Your task to perform on an android device: set the stopwatch Image 0: 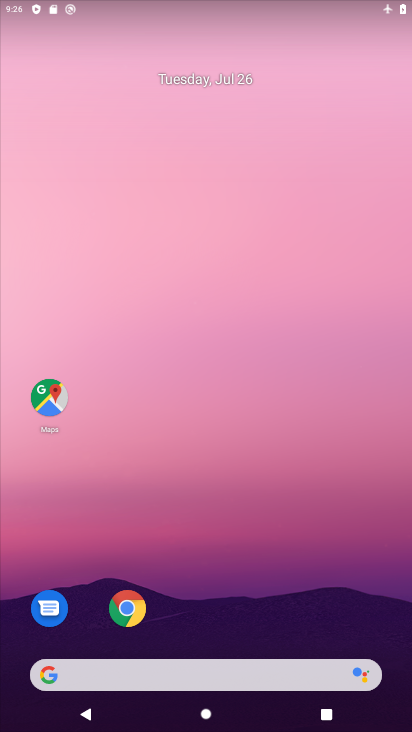
Step 0: drag from (254, 589) to (244, 258)
Your task to perform on an android device: set the stopwatch Image 1: 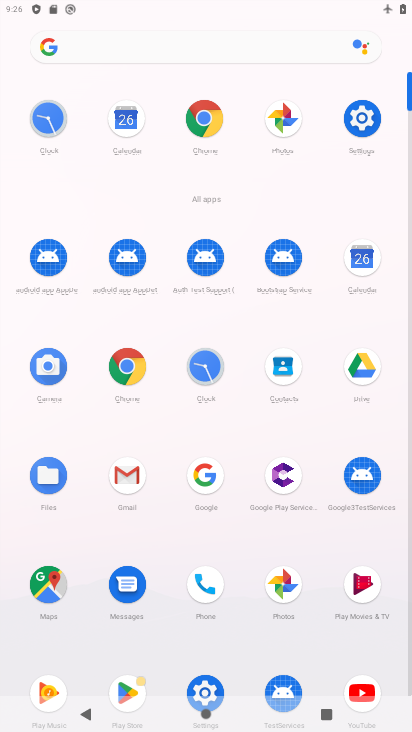
Step 1: click (38, 126)
Your task to perform on an android device: set the stopwatch Image 2: 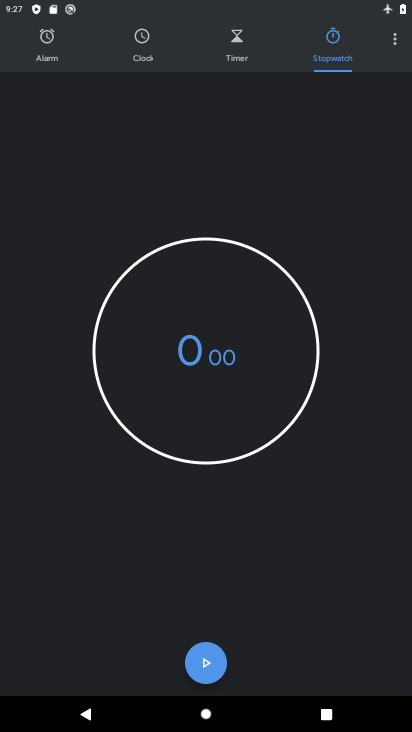
Step 2: click (199, 676)
Your task to perform on an android device: set the stopwatch Image 3: 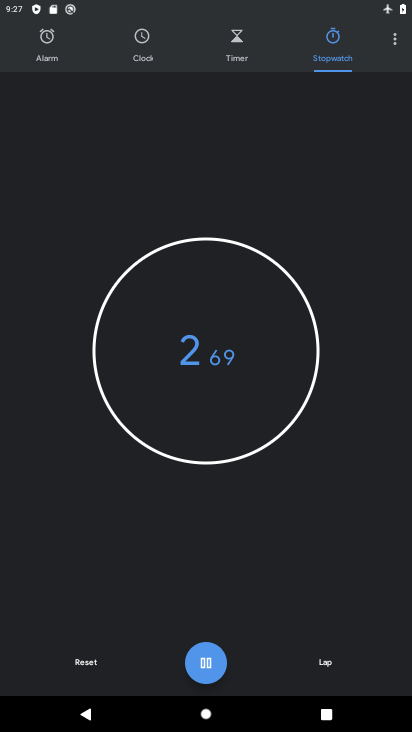
Step 3: task complete